Your task to perform on an android device: Go to location settings Image 0: 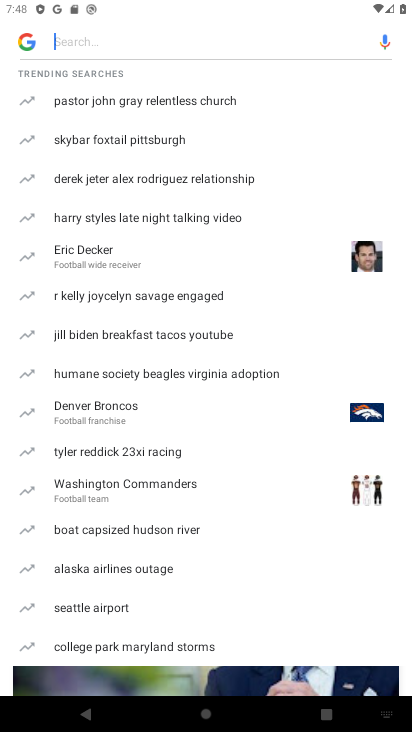
Step 0: press back button
Your task to perform on an android device: Go to location settings Image 1: 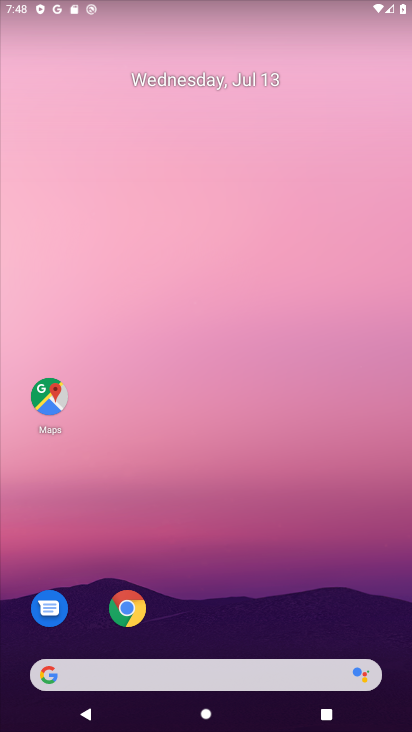
Step 1: drag from (249, 359) to (283, 80)
Your task to perform on an android device: Go to location settings Image 2: 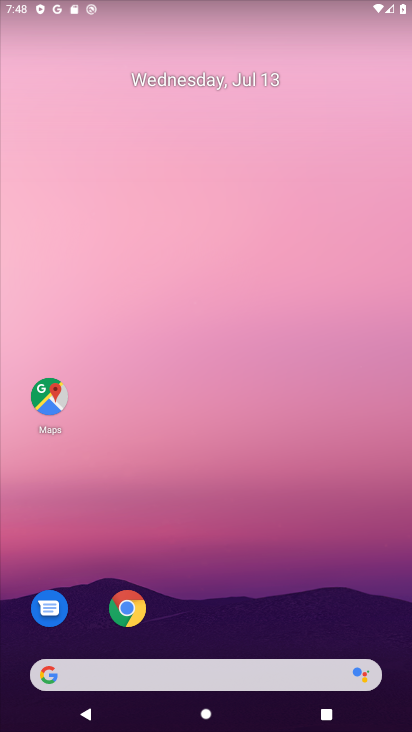
Step 2: drag from (276, 533) to (222, 165)
Your task to perform on an android device: Go to location settings Image 3: 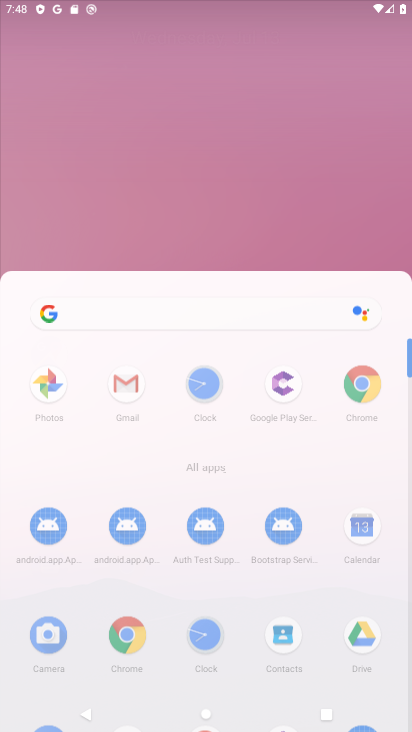
Step 3: drag from (204, 550) to (141, 141)
Your task to perform on an android device: Go to location settings Image 4: 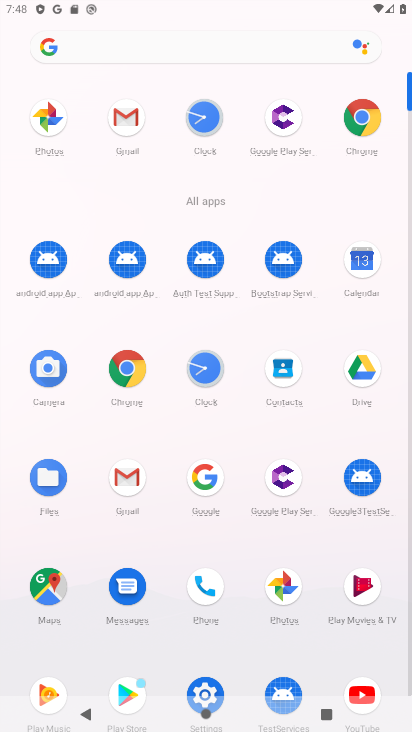
Step 4: click (201, 699)
Your task to perform on an android device: Go to location settings Image 5: 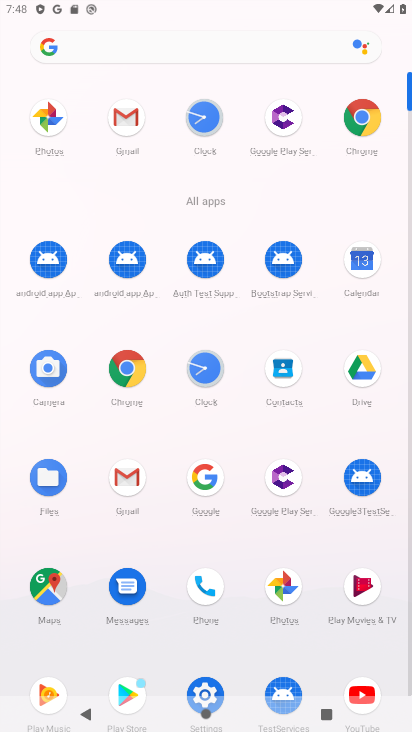
Step 5: click (210, 679)
Your task to perform on an android device: Go to location settings Image 6: 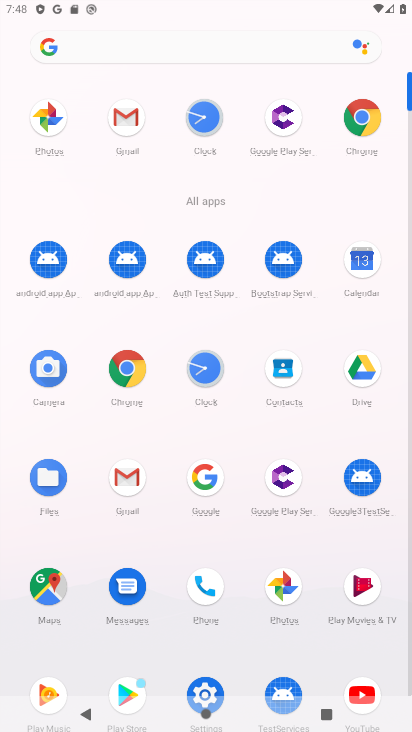
Step 6: click (210, 679)
Your task to perform on an android device: Go to location settings Image 7: 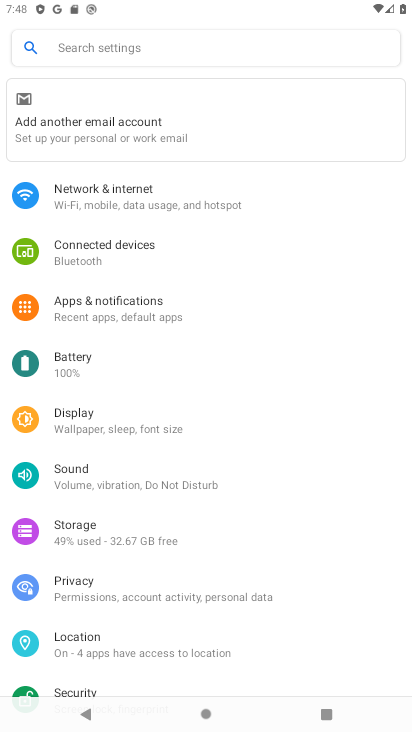
Step 7: click (85, 639)
Your task to perform on an android device: Go to location settings Image 8: 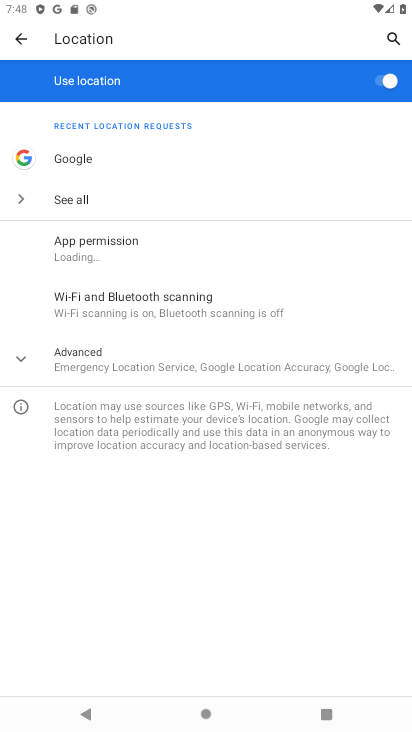
Step 8: task complete